Your task to perform on an android device: Open Reddit.com Image 0: 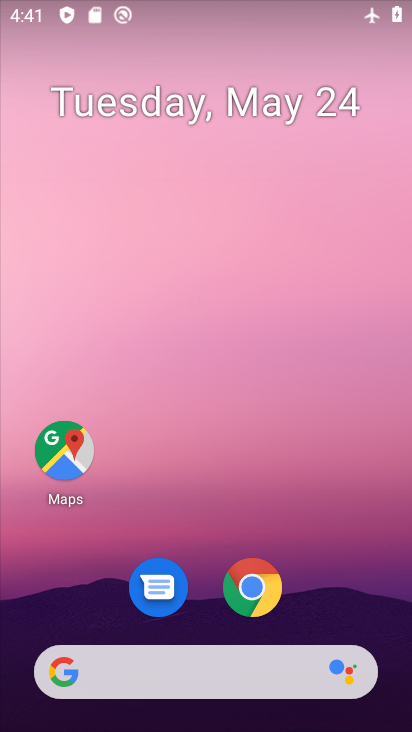
Step 0: click (264, 591)
Your task to perform on an android device: Open Reddit.com Image 1: 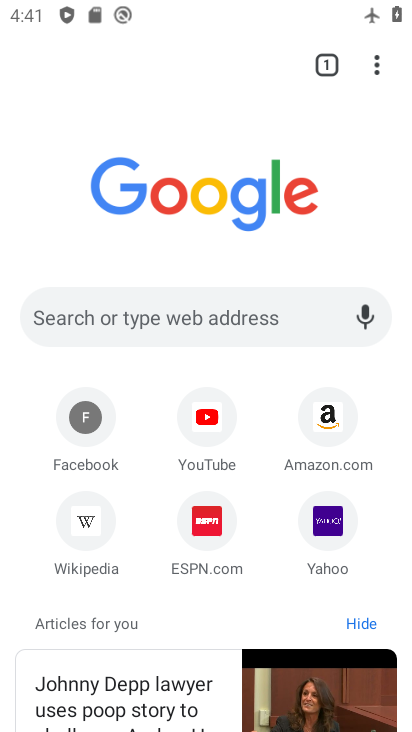
Step 1: click (218, 311)
Your task to perform on an android device: Open Reddit.com Image 2: 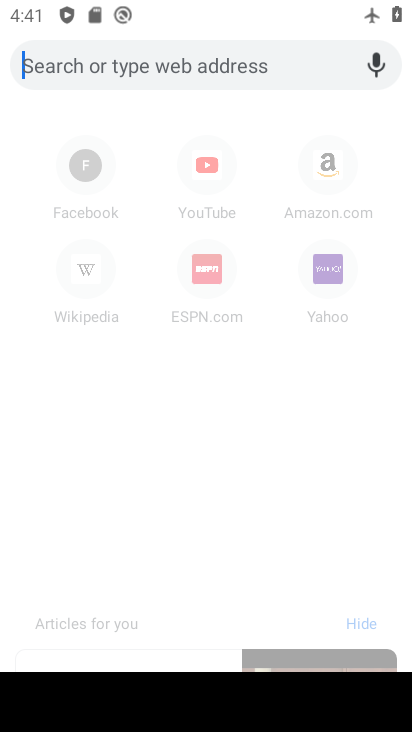
Step 2: type "reddit.com"
Your task to perform on an android device: Open Reddit.com Image 3: 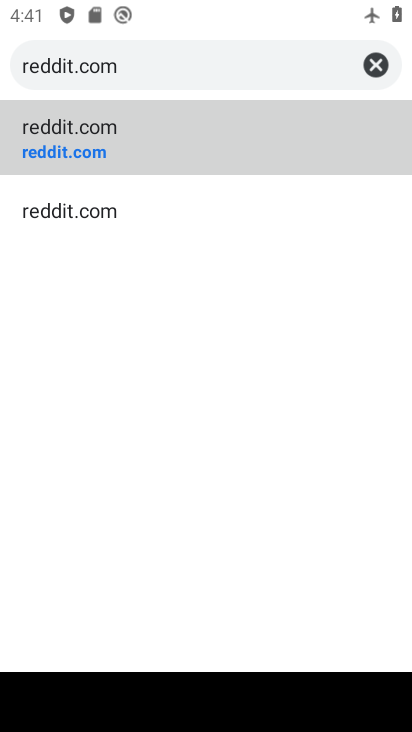
Step 3: click (159, 141)
Your task to perform on an android device: Open Reddit.com Image 4: 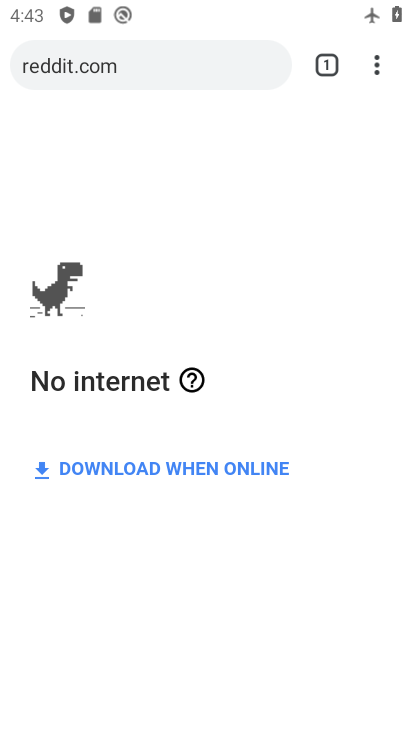
Step 4: task complete